Your task to perform on an android device: Open Reddit.com Image 0: 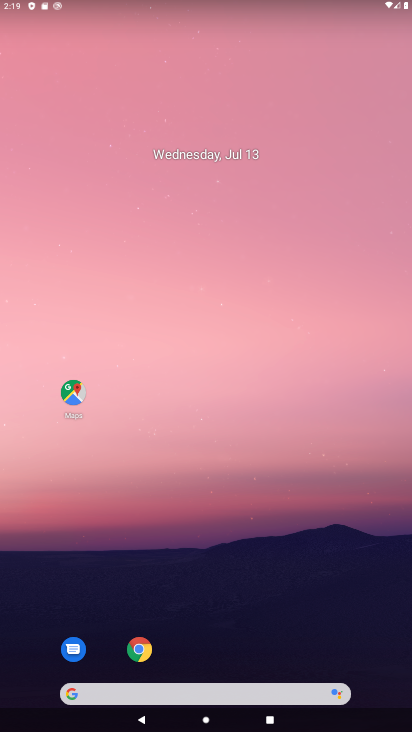
Step 0: click (140, 649)
Your task to perform on an android device: Open Reddit.com Image 1: 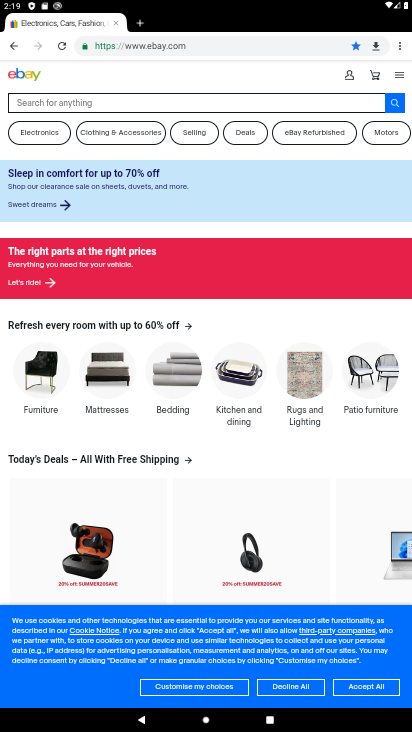
Step 1: click (401, 48)
Your task to perform on an android device: Open Reddit.com Image 2: 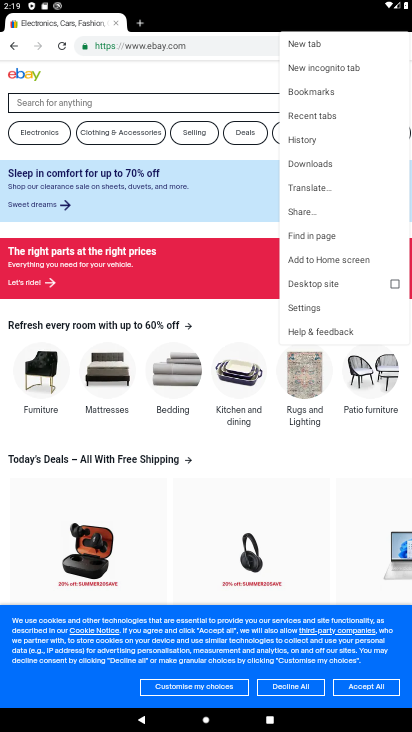
Step 2: click (304, 45)
Your task to perform on an android device: Open Reddit.com Image 3: 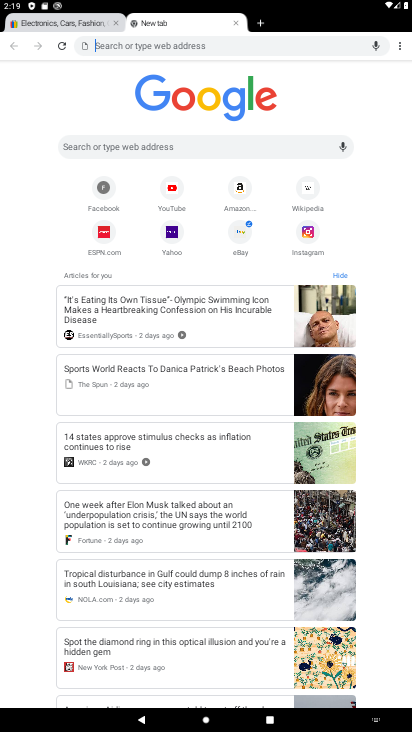
Step 3: type "reddit.com"
Your task to perform on an android device: Open Reddit.com Image 4: 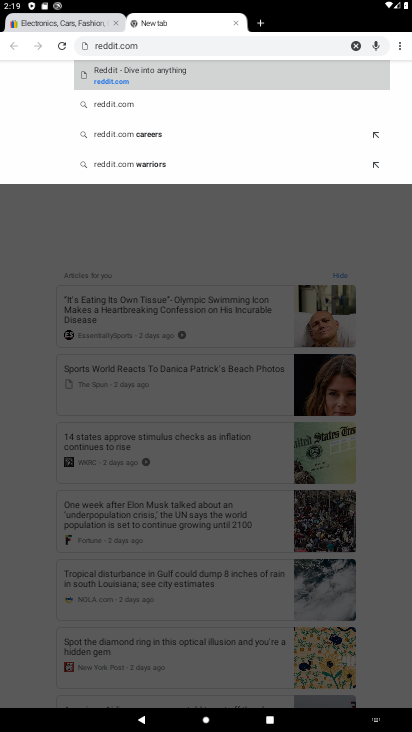
Step 4: click (113, 73)
Your task to perform on an android device: Open Reddit.com Image 5: 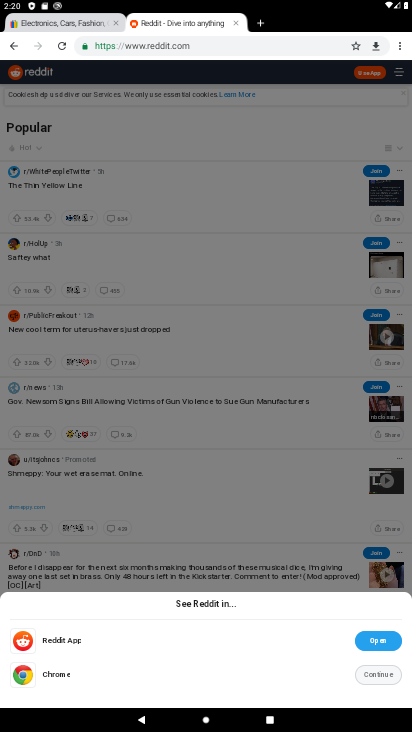
Step 5: task complete